Your task to perform on an android device: change keyboard looks Image 0: 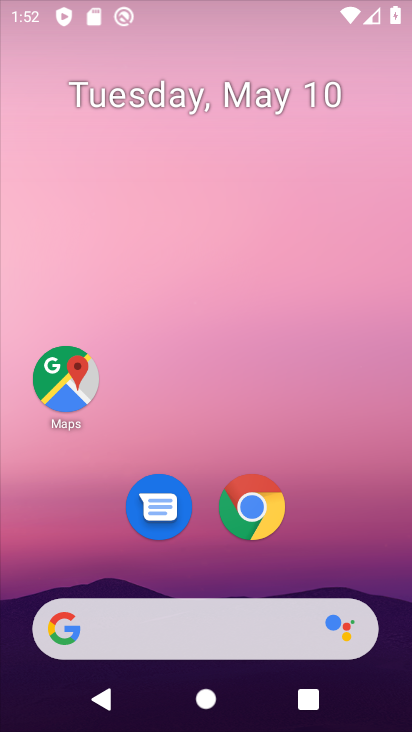
Step 0: drag from (344, 547) to (204, 57)
Your task to perform on an android device: change keyboard looks Image 1: 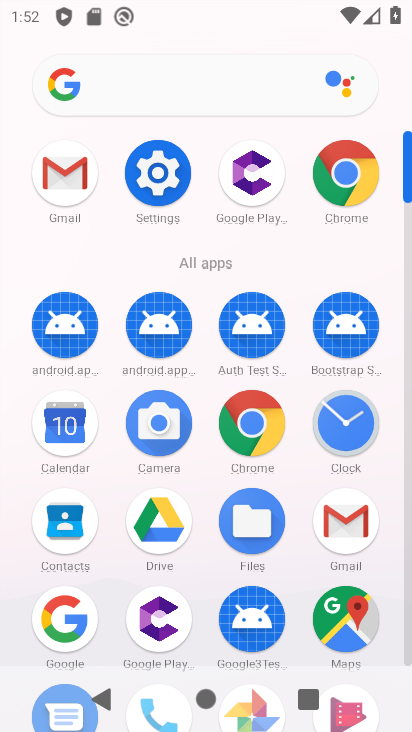
Step 1: drag from (191, 554) to (147, 109)
Your task to perform on an android device: change keyboard looks Image 2: 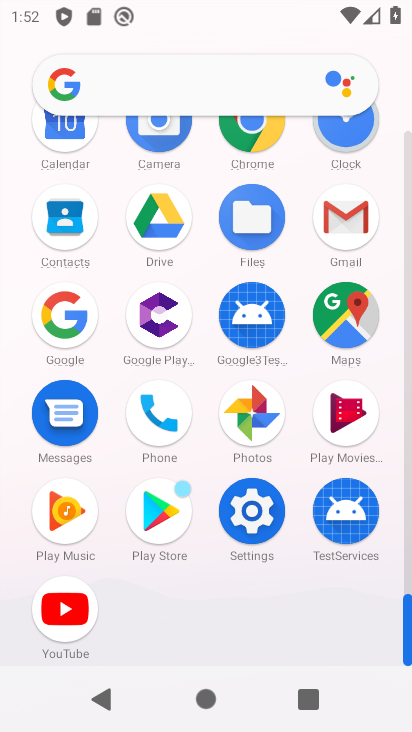
Step 2: click (255, 511)
Your task to perform on an android device: change keyboard looks Image 3: 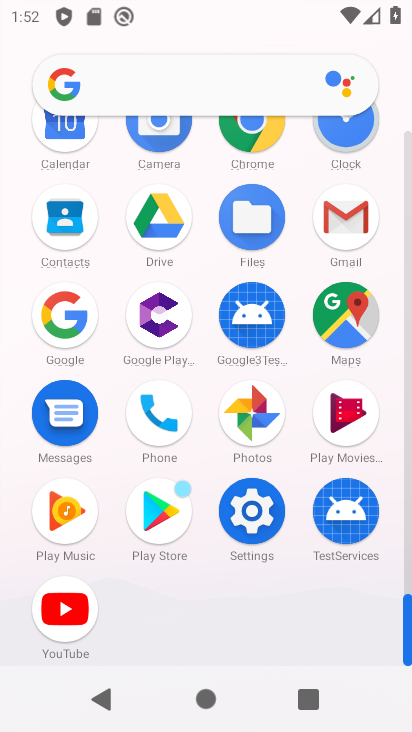
Step 3: click (256, 510)
Your task to perform on an android device: change keyboard looks Image 4: 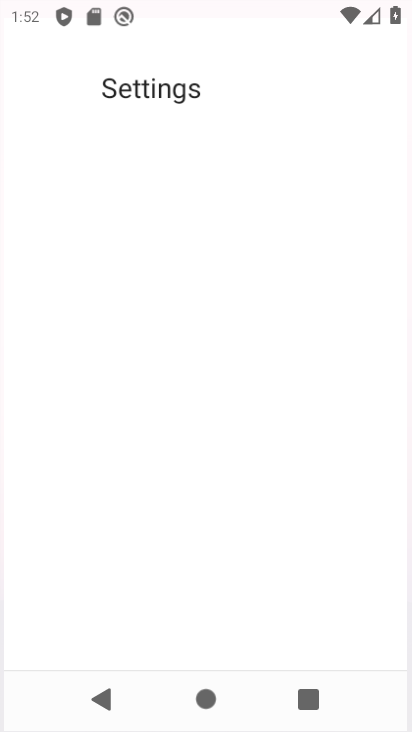
Step 4: click (254, 511)
Your task to perform on an android device: change keyboard looks Image 5: 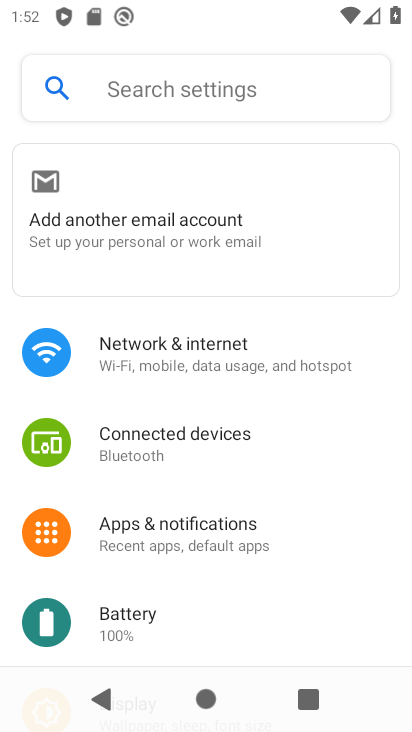
Step 5: click (254, 511)
Your task to perform on an android device: change keyboard looks Image 6: 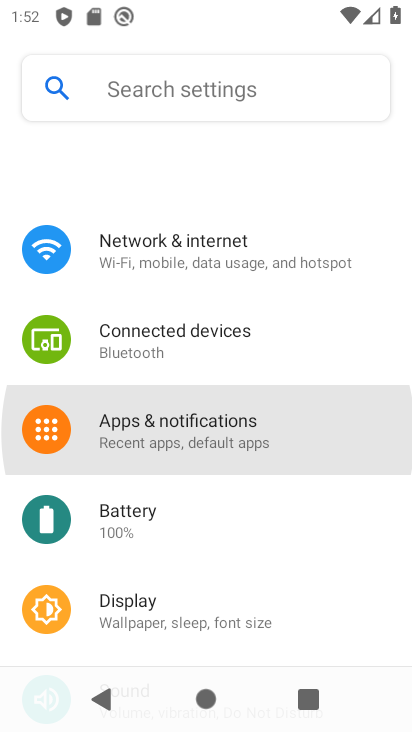
Step 6: click (253, 511)
Your task to perform on an android device: change keyboard looks Image 7: 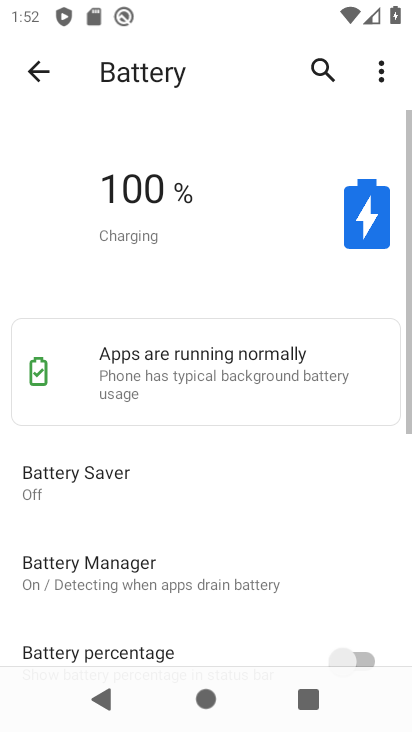
Step 7: click (32, 72)
Your task to perform on an android device: change keyboard looks Image 8: 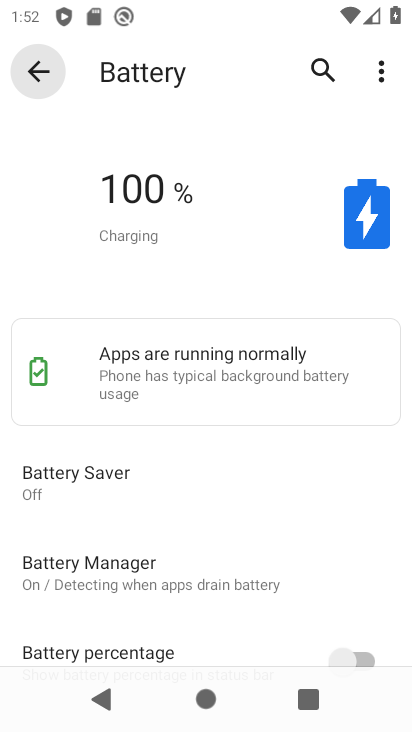
Step 8: click (32, 72)
Your task to perform on an android device: change keyboard looks Image 9: 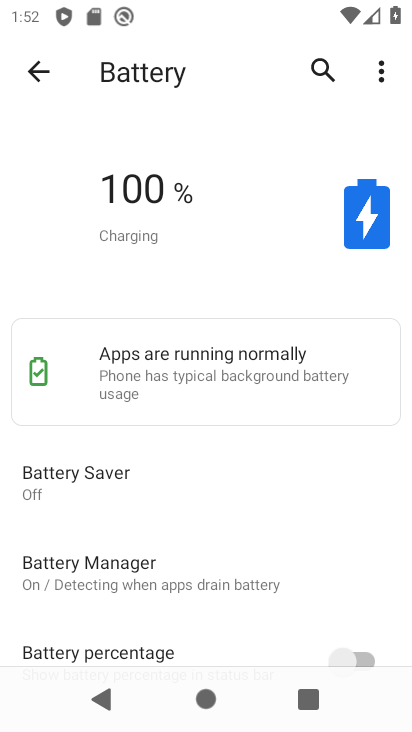
Step 9: click (36, 70)
Your task to perform on an android device: change keyboard looks Image 10: 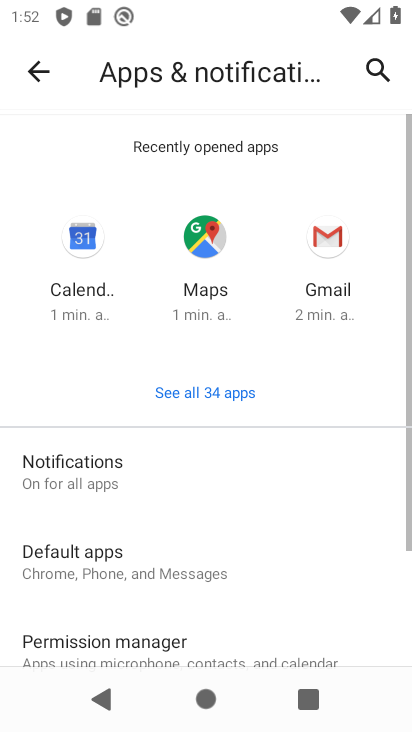
Step 10: click (36, 70)
Your task to perform on an android device: change keyboard looks Image 11: 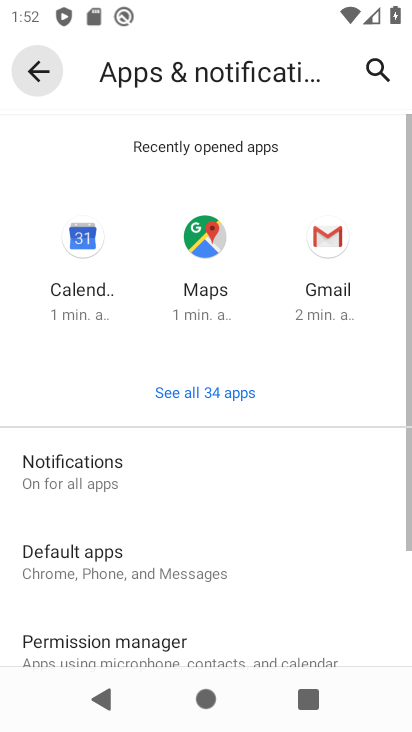
Step 11: click (36, 70)
Your task to perform on an android device: change keyboard looks Image 12: 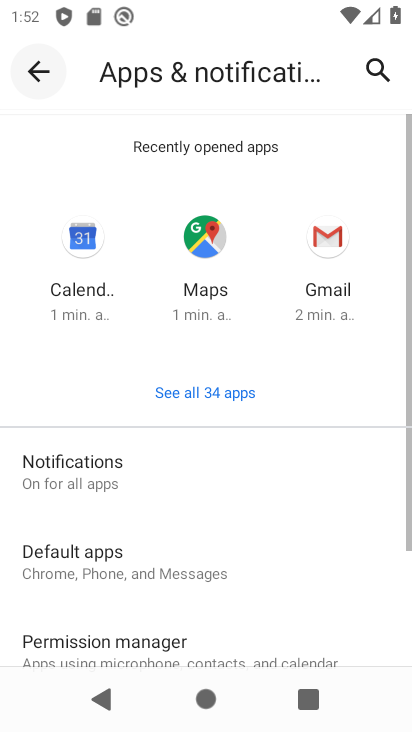
Step 12: click (36, 70)
Your task to perform on an android device: change keyboard looks Image 13: 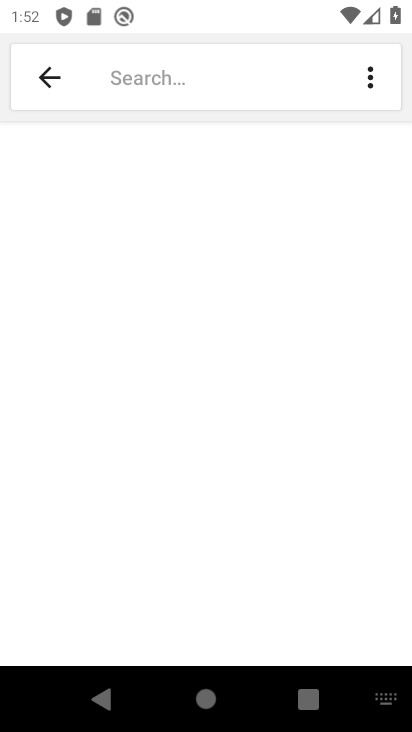
Step 13: press back button
Your task to perform on an android device: change keyboard looks Image 14: 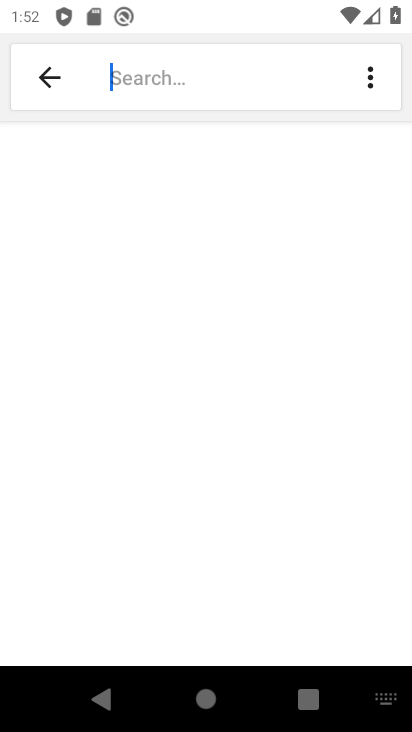
Step 14: press back button
Your task to perform on an android device: change keyboard looks Image 15: 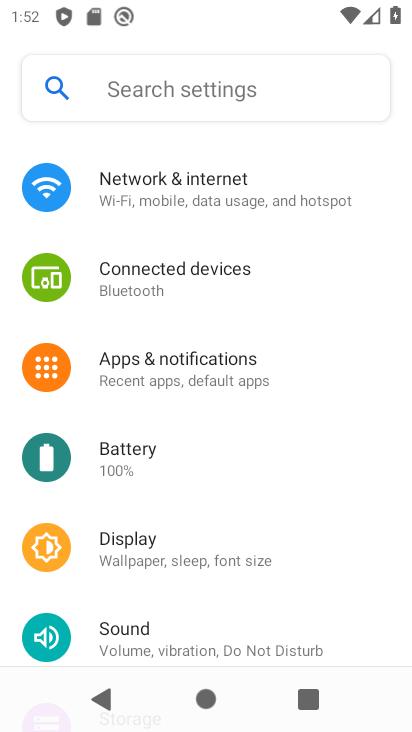
Step 15: press back button
Your task to perform on an android device: change keyboard looks Image 16: 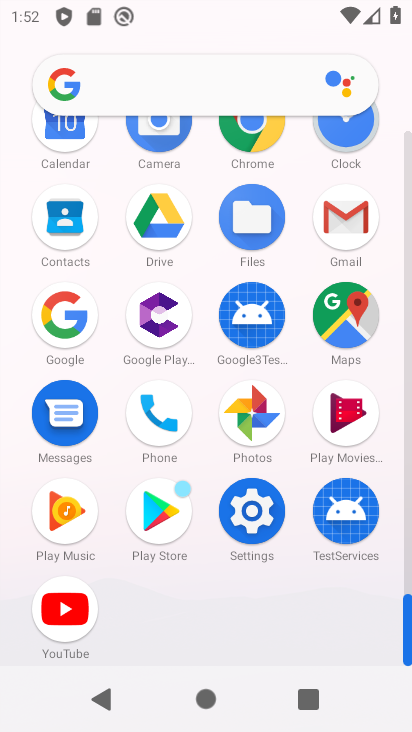
Step 16: press back button
Your task to perform on an android device: change keyboard looks Image 17: 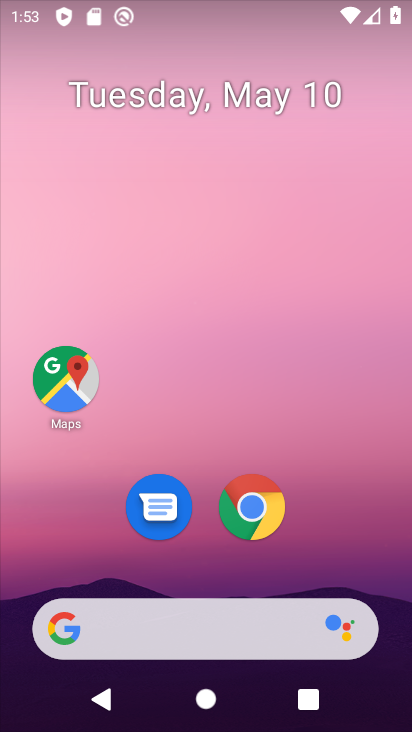
Step 17: drag from (318, 519) to (96, 15)
Your task to perform on an android device: change keyboard looks Image 18: 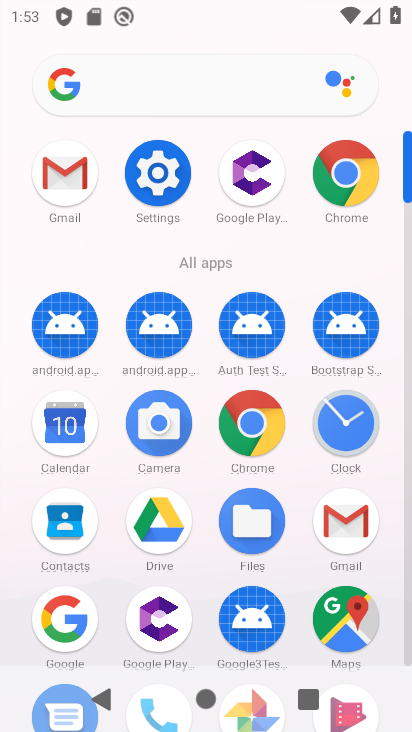
Step 18: click (163, 155)
Your task to perform on an android device: change keyboard looks Image 19: 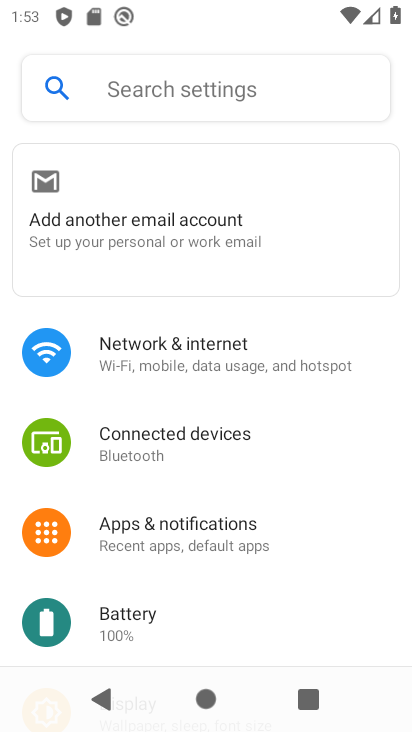
Step 19: drag from (177, 564) to (104, 216)
Your task to perform on an android device: change keyboard looks Image 20: 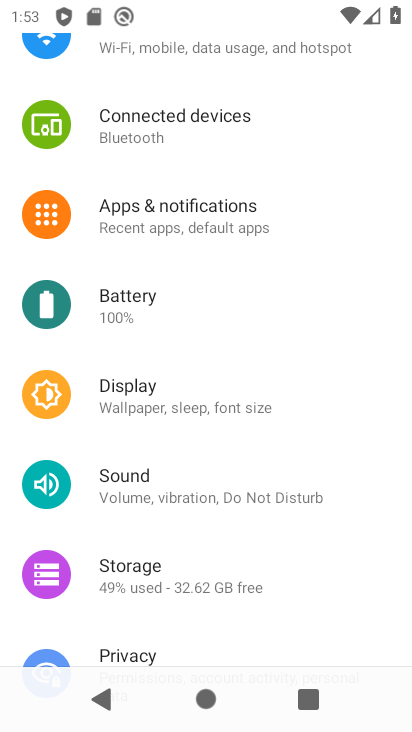
Step 20: drag from (144, 499) to (120, 239)
Your task to perform on an android device: change keyboard looks Image 21: 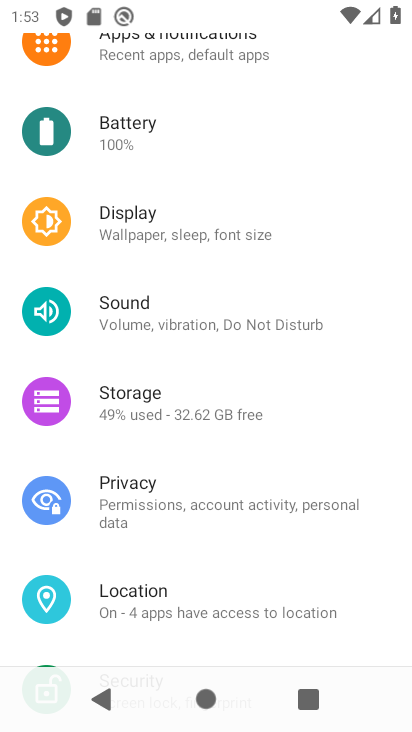
Step 21: drag from (200, 489) to (131, 134)
Your task to perform on an android device: change keyboard looks Image 22: 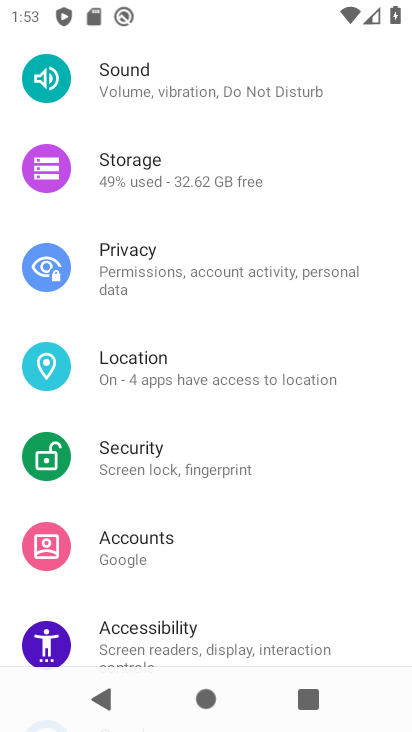
Step 22: drag from (168, 553) to (164, 258)
Your task to perform on an android device: change keyboard looks Image 23: 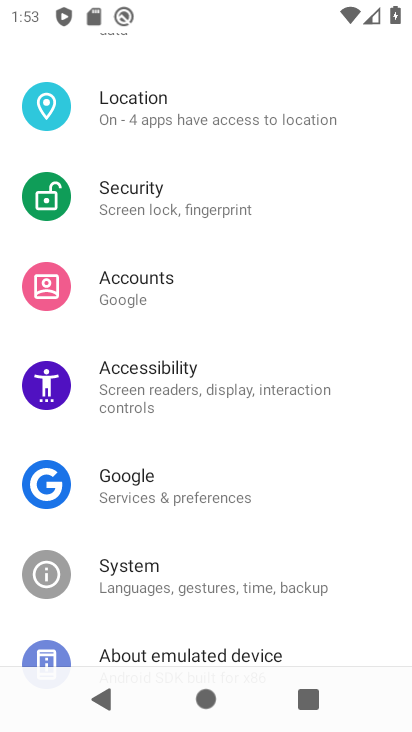
Step 23: drag from (162, 580) to (154, 178)
Your task to perform on an android device: change keyboard looks Image 24: 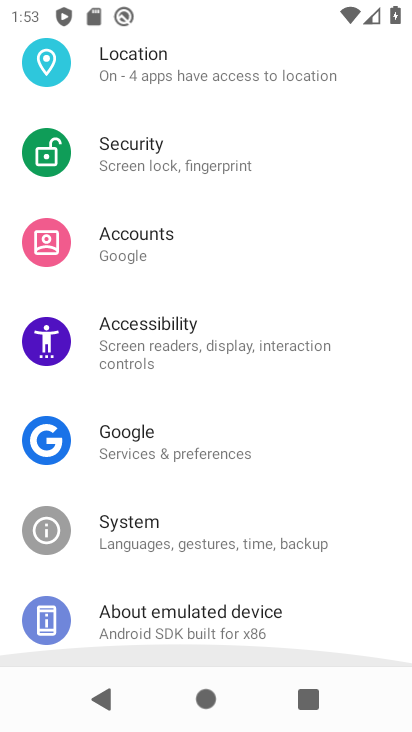
Step 24: drag from (207, 448) to (199, 165)
Your task to perform on an android device: change keyboard looks Image 25: 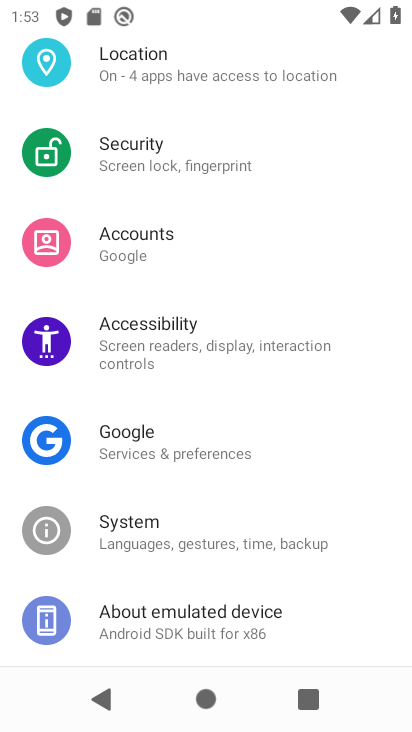
Step 25: click (152, 535)
Your task to perform on an android device: change keyboard looks Image 26: 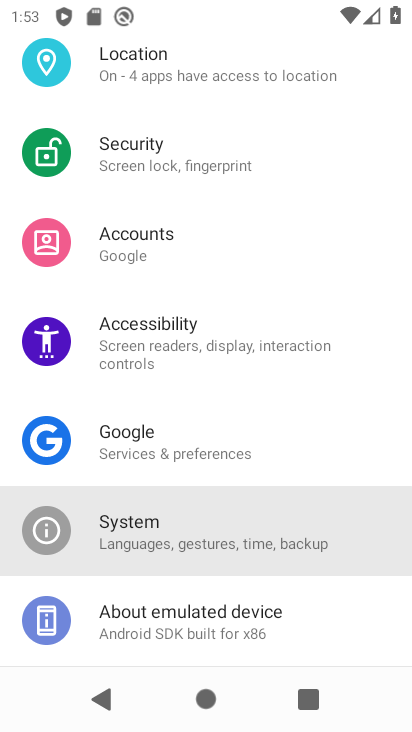
Step 26: click (153, 543)
Your task to perform on an android device: change keyboard looks Image 27: 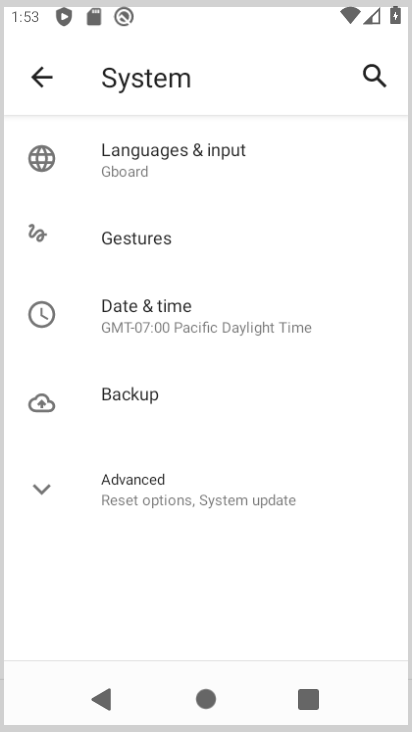
Step 27: click (153, 544)
Your task to perform on an android device: change keyboard looks Image 28: 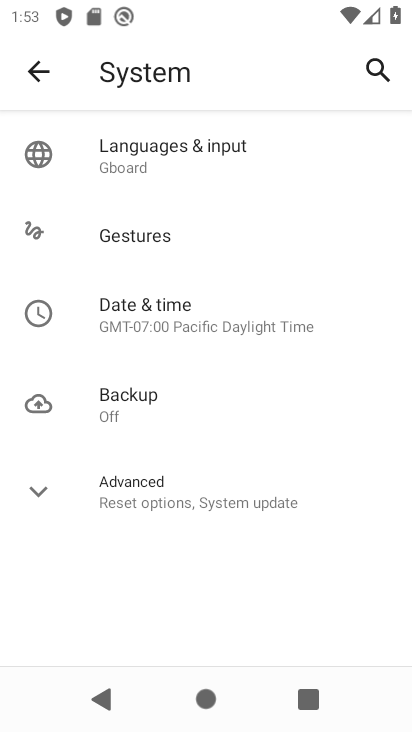
Step 28: click (134, 168)
Your task to perform on an android device: change keyboard looks Image 29: 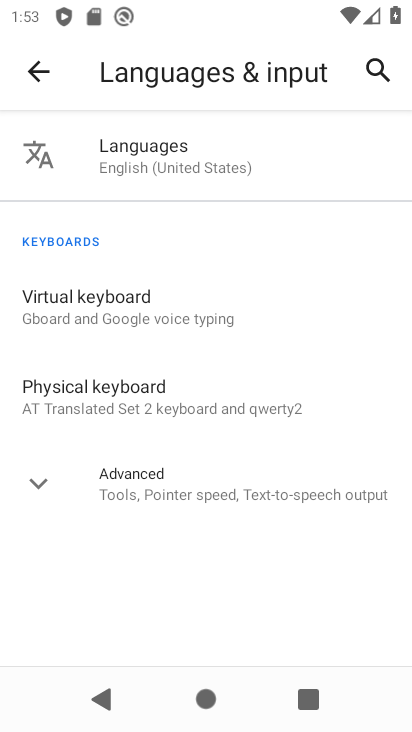
Step 29: click (108, 325)
Your task to perform on an android device: change keyboard looks Image 30: 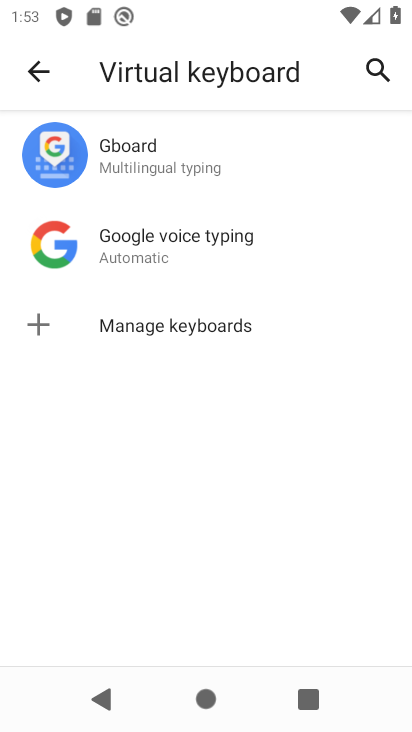
Step 30: click (112, 153)
Your task to perform on an android device: change keyboard looks Image 31: 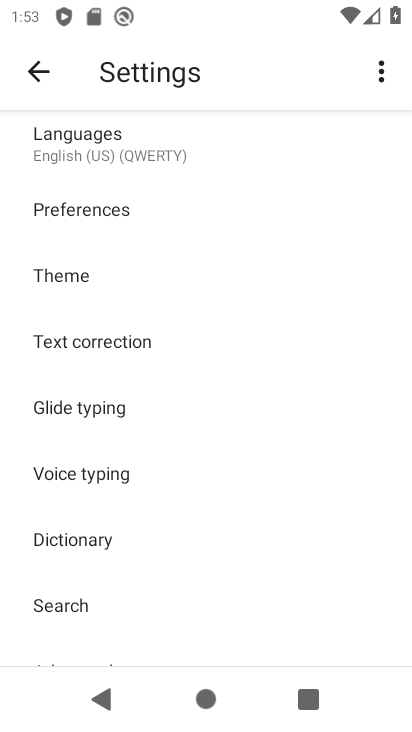
Step 31: drag from (122, 466) to (58, 81)
Your task to perform on an android device: change keyboard looks Image 32: 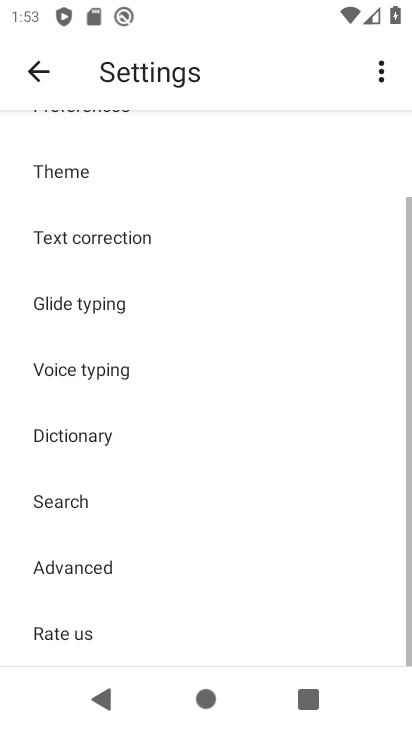
Step 32: drag from (150, 333) to (184, 419)
Your task to perform on an android device: change keyboard looks Image 33: 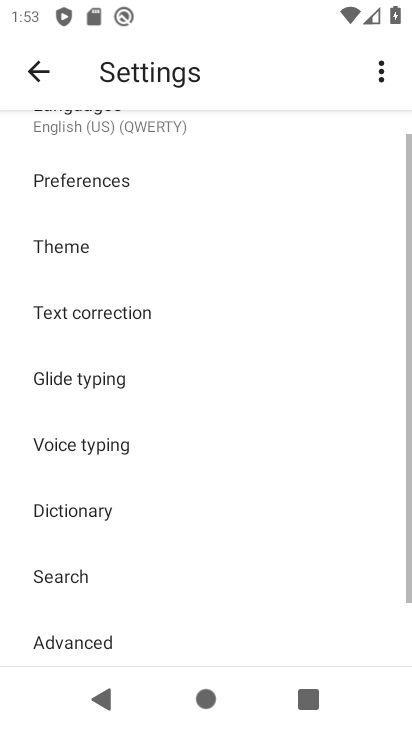
Step 33: drag from (161, 216) to (234, 515)
Your task to perform on an android device: change keyboard looks Image 34: 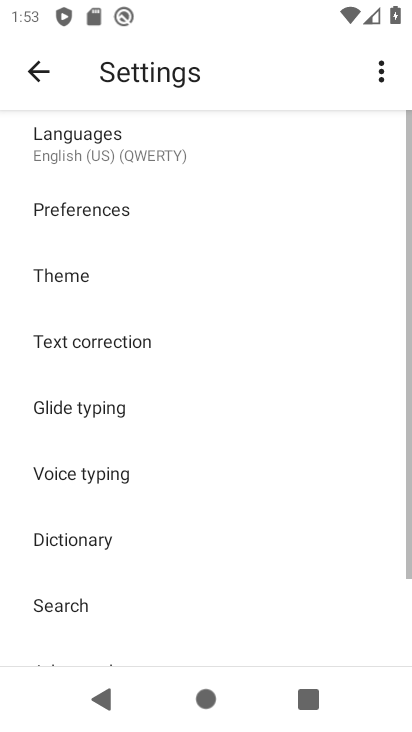
Step 34: drag from (97, 413) to (111, 503)
Your task to perform on an android device: change keyboard looks Image 35: 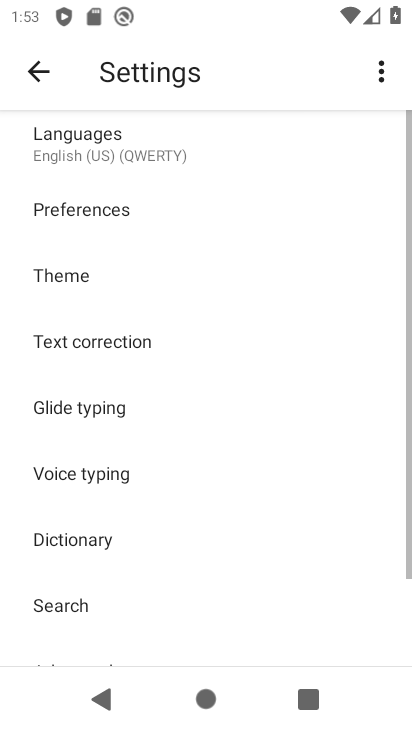
Step 35: click (73, 151)
Your task to perform on an android device: change keyboard looks Image 36: 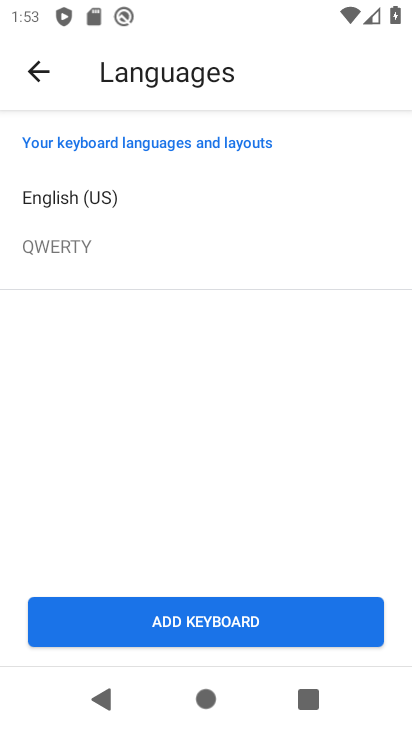
Step 36: click (235, 614)
Your task to perform on an android device: change keyboard looks Image 37: 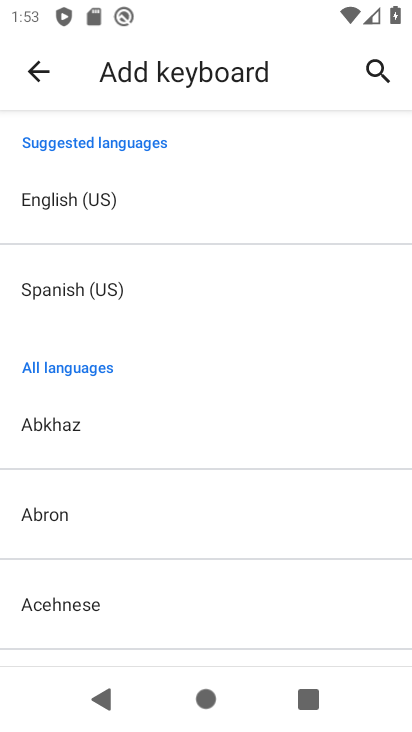
Step 37: click (36, 73)
Your task to perform on an android device: change keyboard looks Image 38: 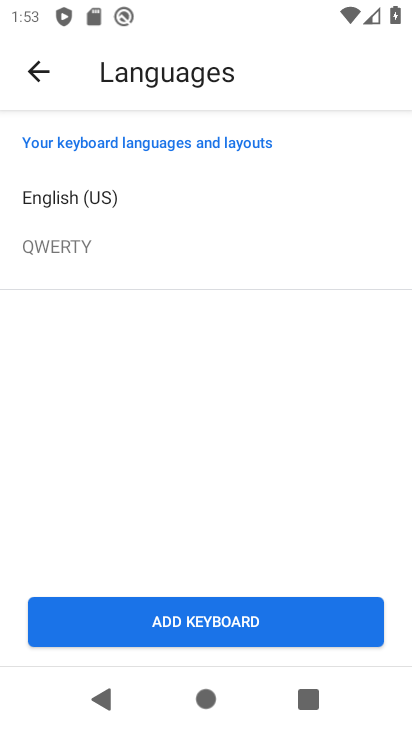
Step 38: click (39, 71)
Your task to perform on an android device: change keyboard looks Image 39: 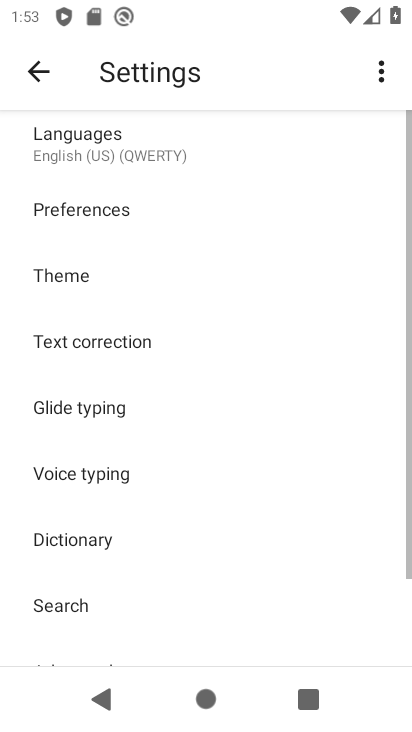
Step 39: click (66, 272)
Your task to perform on an android device: change keyboard looks Image 40: 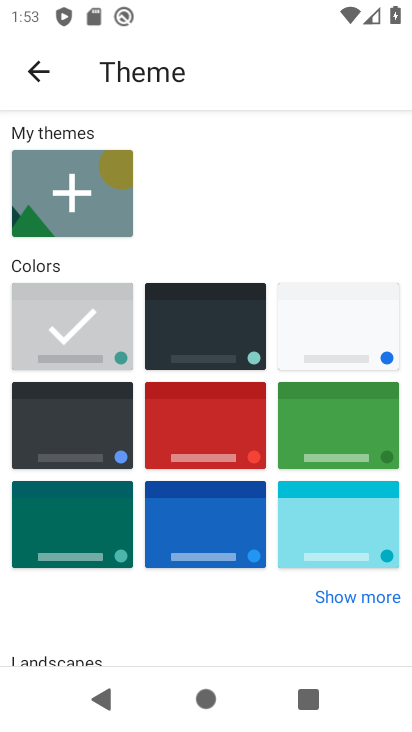
Step 40: click (106, 430)
Your task to perform on an android device: change keyboard looks Image 41: 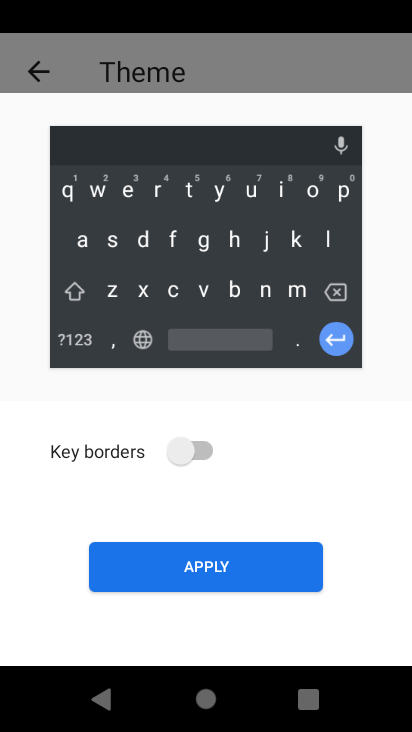
Step 41: click (205, 557)
Your task to perform on an android device: change keyboard looks Image 42: 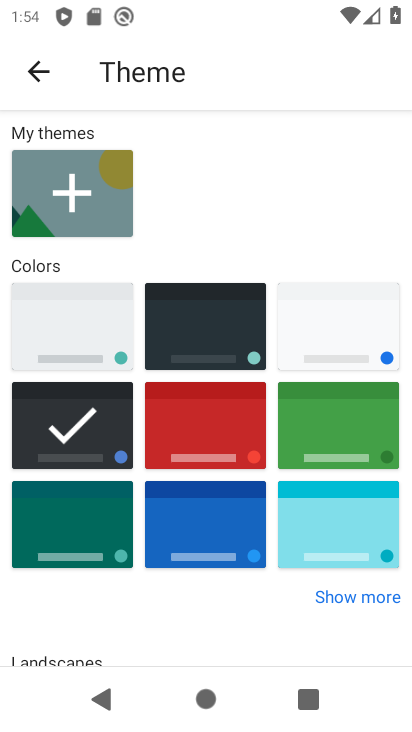
Step 42: task complete